Your task to perform on an android device: find snoozed emails in the gmail app Image 0: 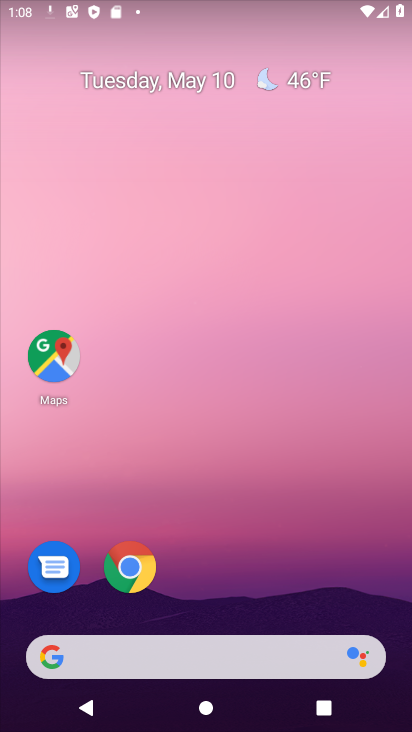
Step 0: drag from (264, 502) to (200, 157)
Your task to perform on an android device: find snoozed emails in the gmail app Image 1: 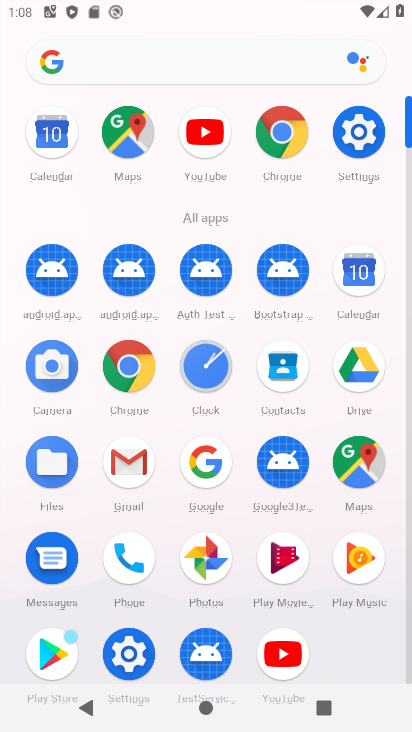
Step 1: click (134, 461)
Your task to perform on an android device: find snoozed emails in the gmail app Image 2: 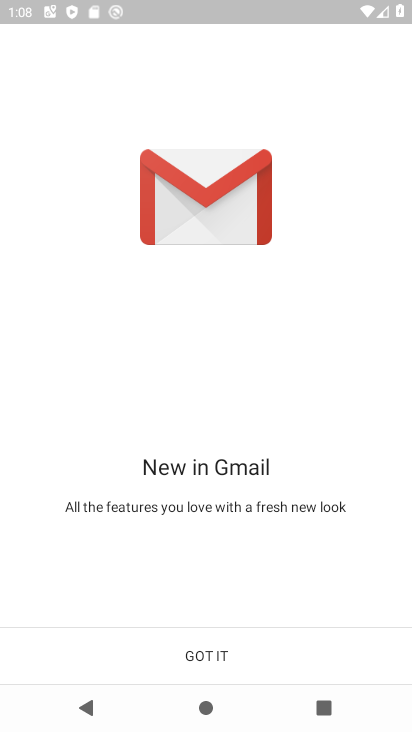
Step 2: click (222, 668)
Your task to perform on an android device: find snoozed emails in the gmail app Image 3: 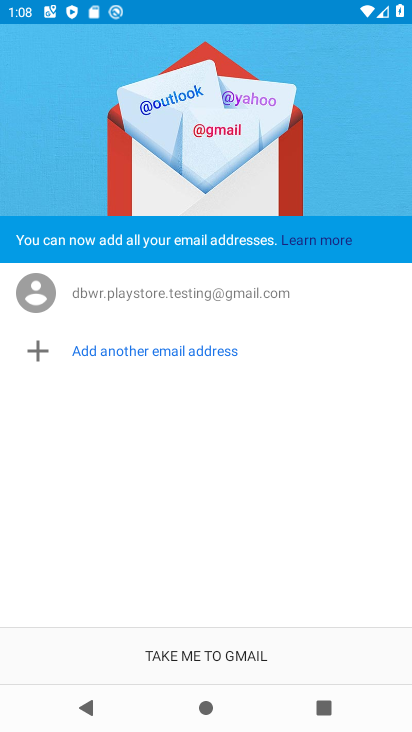
Step 3: click (213, 653)
Your task to perform on an android device: find snoozed emails in the gmail app Image 4: 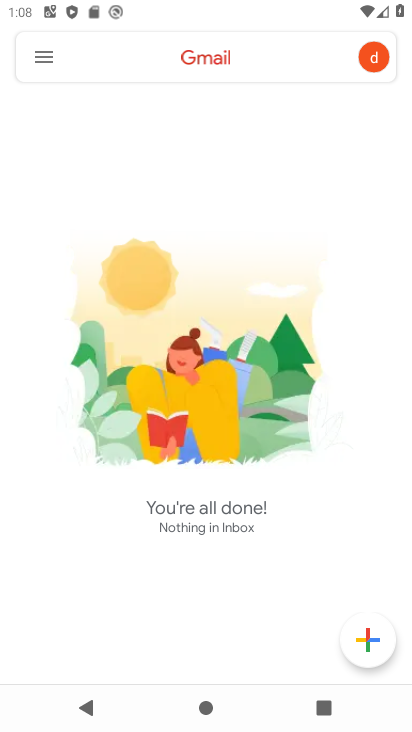
Step 4: click (36, 62)
Your task to perform on an android device: find snoozed emails in the gmail app Image 5: 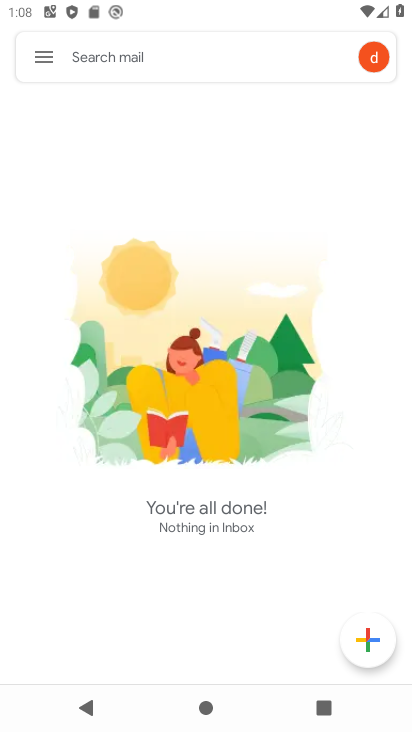
Step 5: click (39, 64)
Your task to perform on an android device: find snoozed emails in the gmail app Image 6: 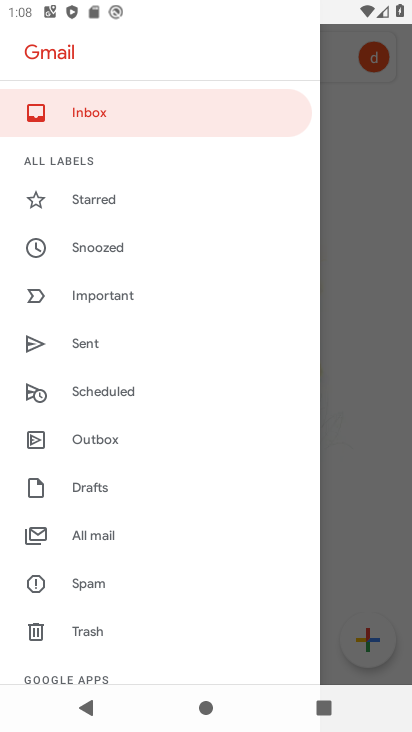
Step 6: click (152, 250)
Your task to perform on an android device: find snoozed emails in the gmail app Image 7: 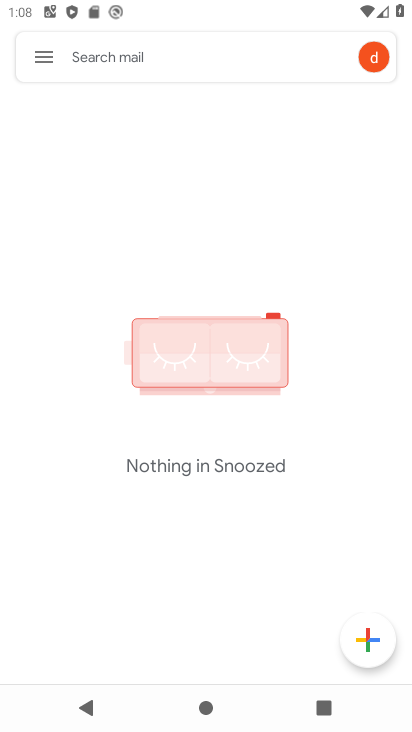
Step 7: task complete